Your task to perform on an android device: open chrome privacy settings Image 0: 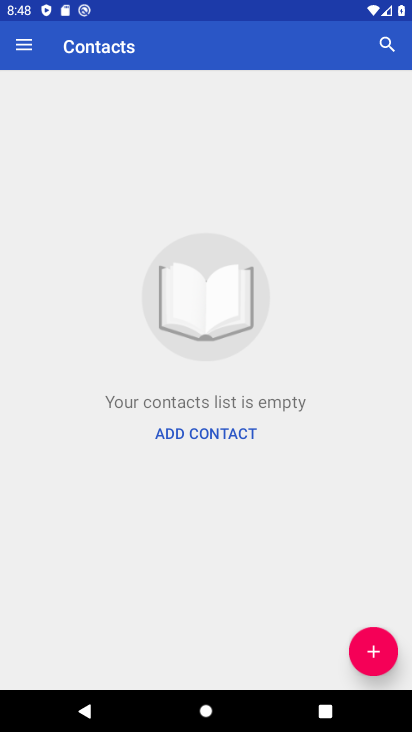
Step 0: press home button
Your task to perform on an android device: open chrome privacy settings Image 1: 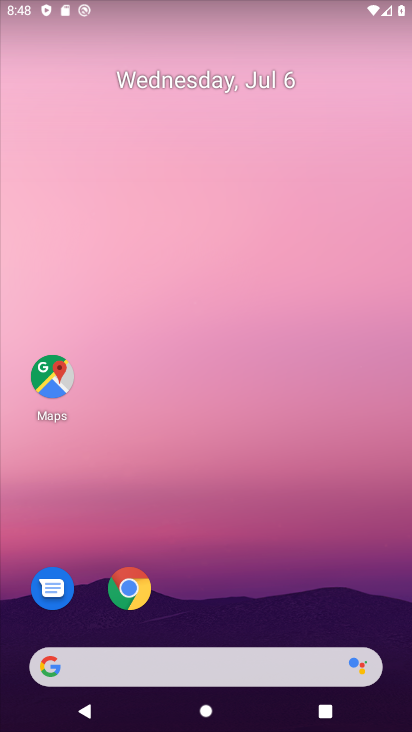
Step 1: click (129, 584)
Your task to perform on an android device: open chrome privacy settings Image 2: 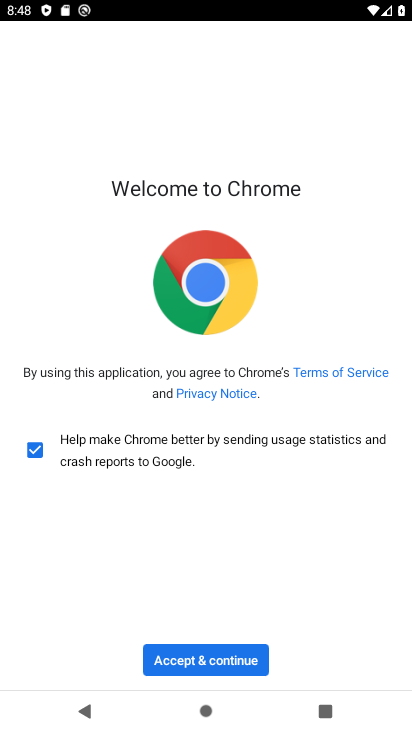
Step 2: click (225, 658)
Your task to perform on an android device: open chrome privacy settings Image 3: 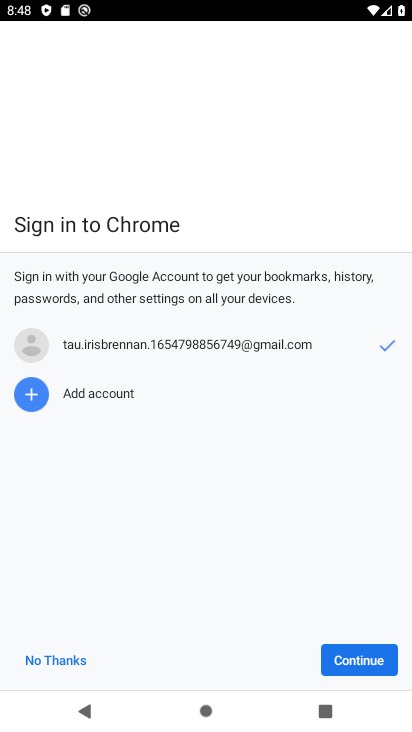
Step 3: click (349, 663)
Your task to perform on an android device: open chrome privacy settings Image 4: 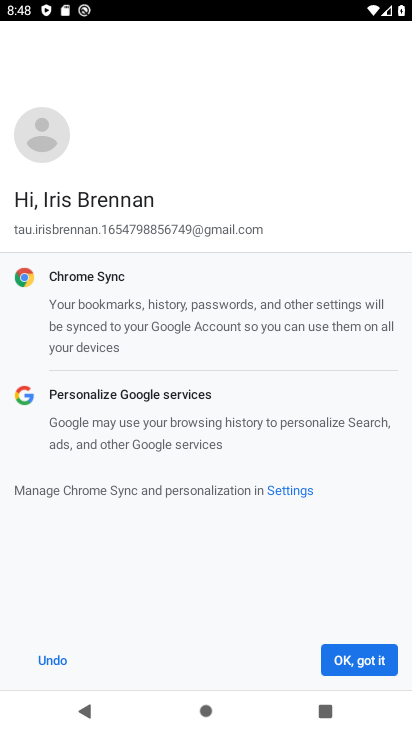
Step 4: click (350, 665)
Your task to perform on an android device: open chrome privacy settings Image 5: 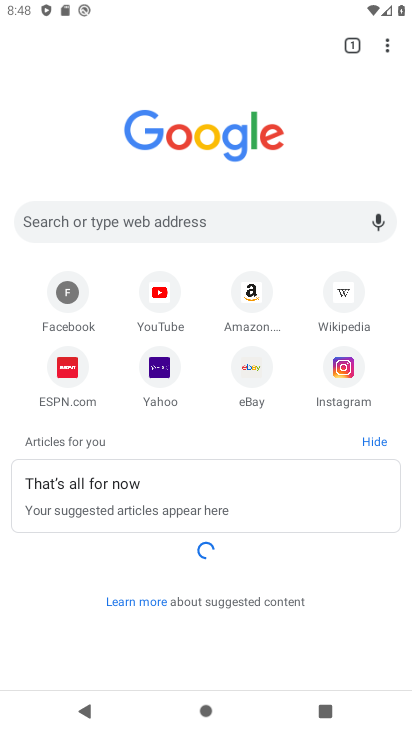
Step 5: click (385, 48)
Your task to perform on an android device: open chrome privacy settings Image 6: 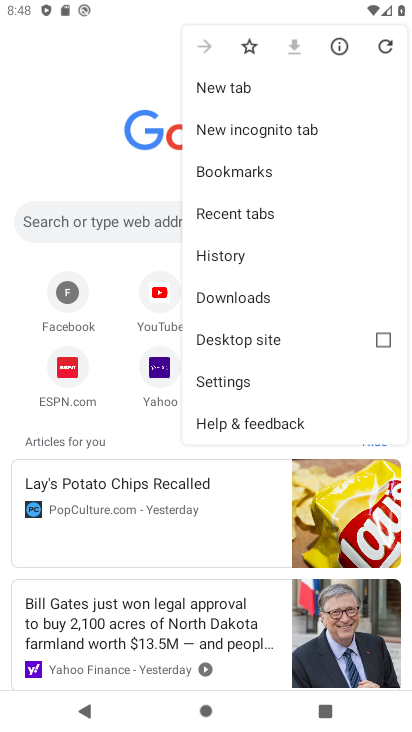
Step 6: click (238, 383)
Your task to perform on an android device: open chrome privacy settings Image 7: 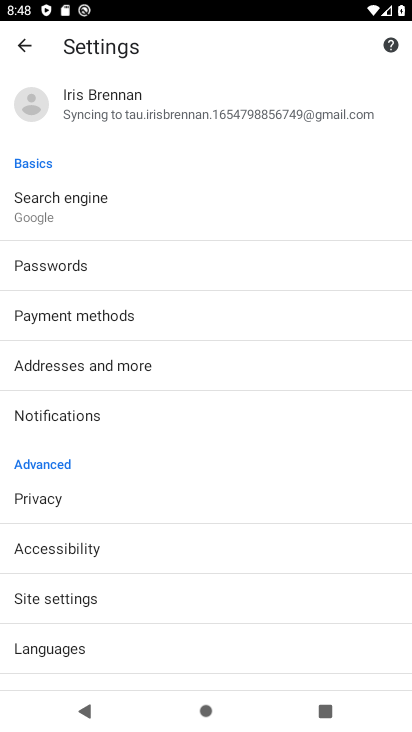
Step 7: click (43, 494)
Your task to perform on an android device: open chrome privacy settings Image 8: 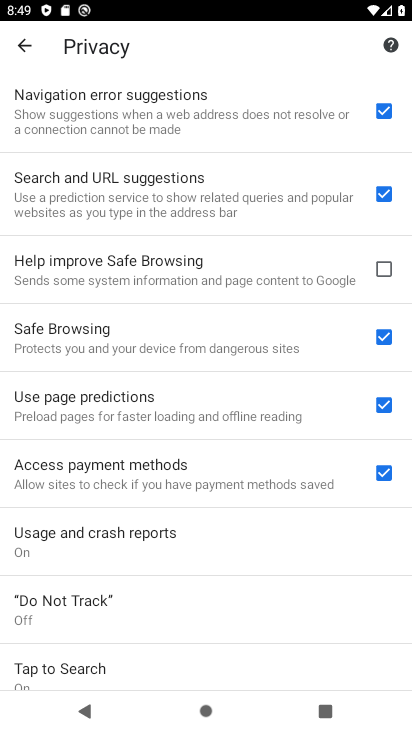
Step 8: task complete